Your task to perform on an android device: Open my contact list Image 0: 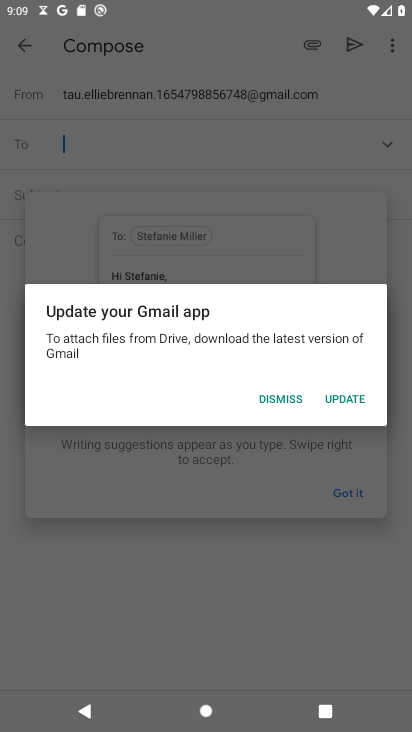
Step 0: press home button
Your task to perform on an android device: Open my contact list Image 1: 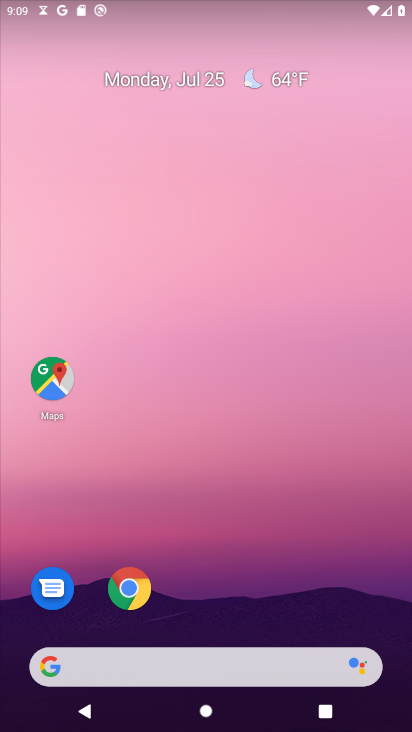
Step 1: drag from (167, 660) to (206, 304)
Your task to perform on an android device: Open my contact list Image 2: 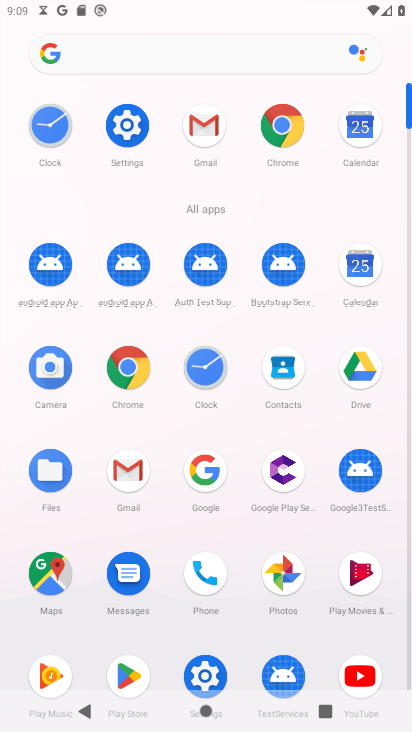
Step 2: click (274, 364)
Your task to perform on an android device: Open my contact list Image 3: 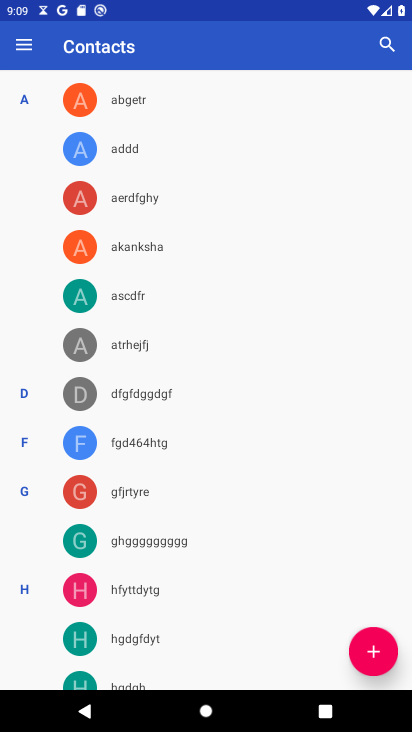
Step 3: task complete